Your task to perform on an android device: Open the web browser Image 0: 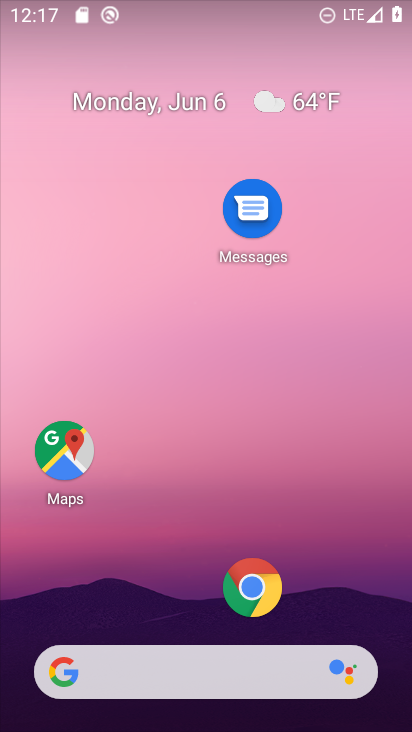
Step 0: click (205, 662)
Your task to perform on an android device: Open the web browser Image 1: 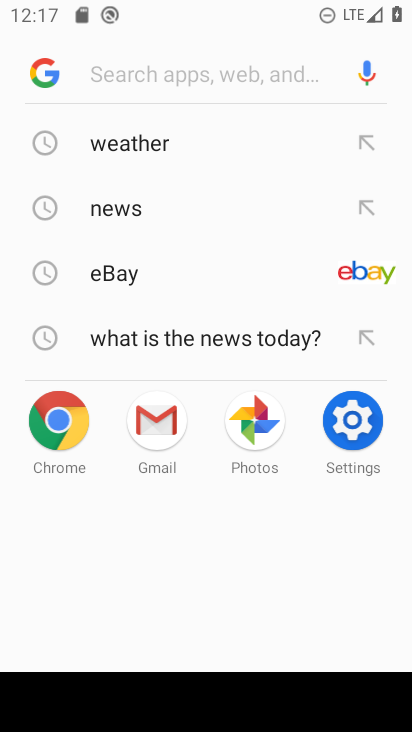
Step 1: task complete